Your task to perform on an android device: Go to internet settings Image 0: 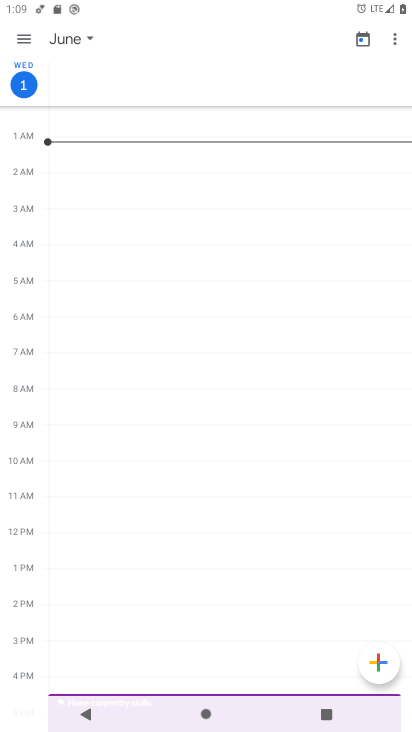
Step 0: press home button
Your task to perform on an android device: Go to internet settings Image 1: 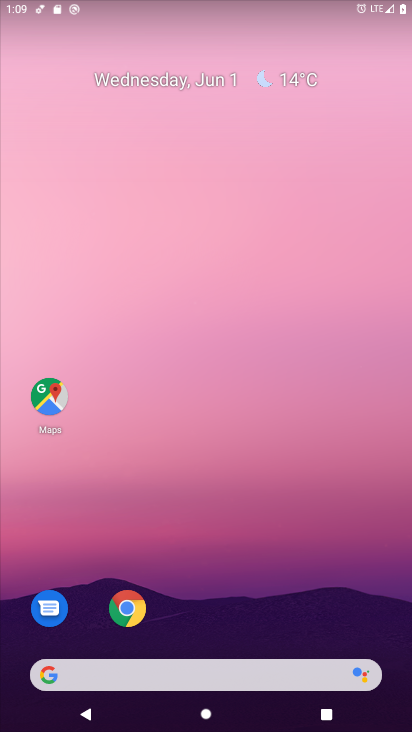
Step 1: drag from (254, 630) to (266, 190)
Your task to perform on an android device: Go to internet settings Image 2: 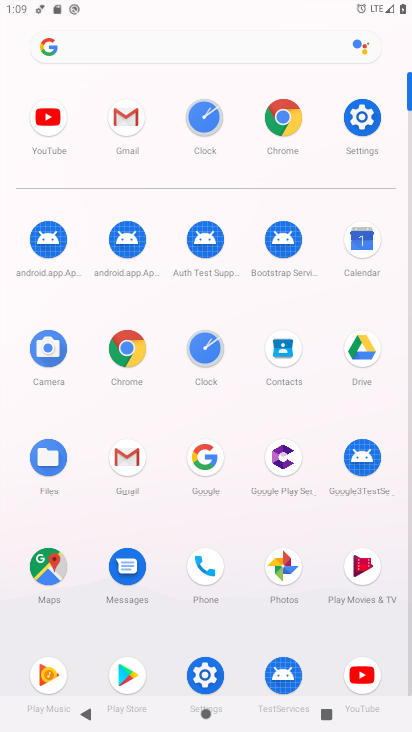
Step 2: click (358, 145)
Your task to perform on an android device: Go to internet settings Image 3: 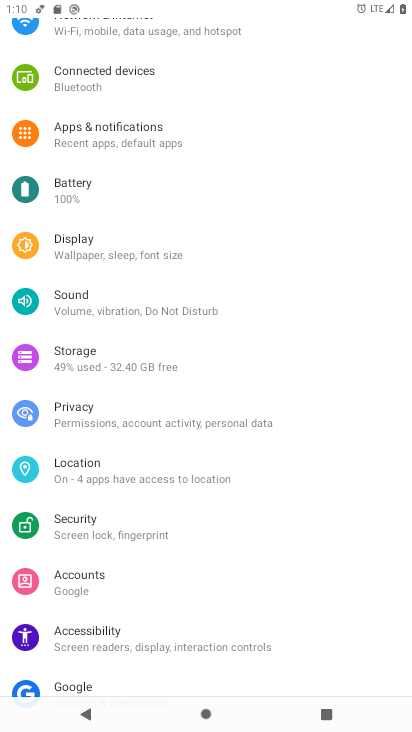
Step 3: drag from (166, 152) to (146, 455)
Your task to perform on an android device: Go to internet settings Image 4: 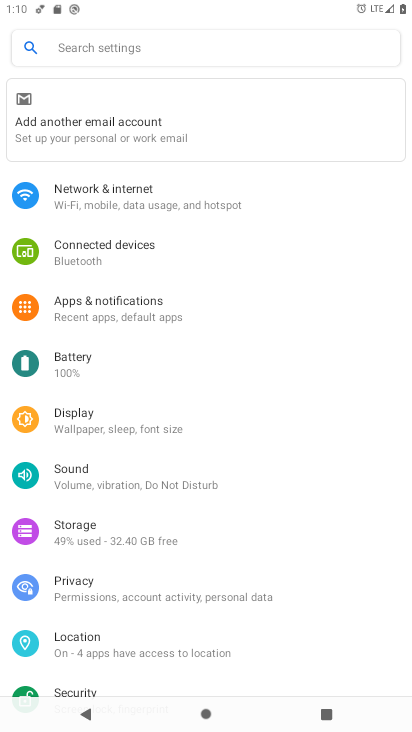
Step 4: click (159, 198)
Your task to perform on an android device: Go to internet settings Image 5: 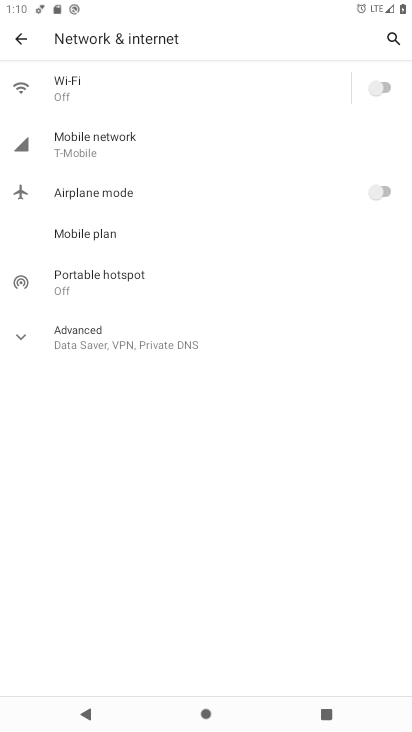
Step 5: task complete